Your task to perform on an android device: Do I have any events tomorrow? Image 0: 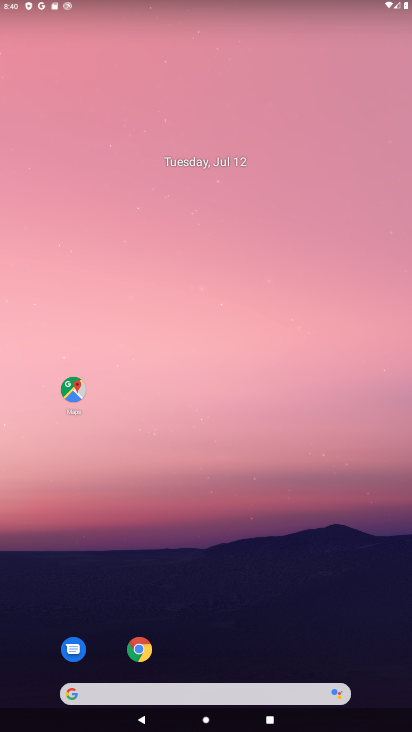
Step 0: drag from (263, 658) to (269, 57)
Your task to perform on an android device: Do I have any events tomorrow? Image 1: 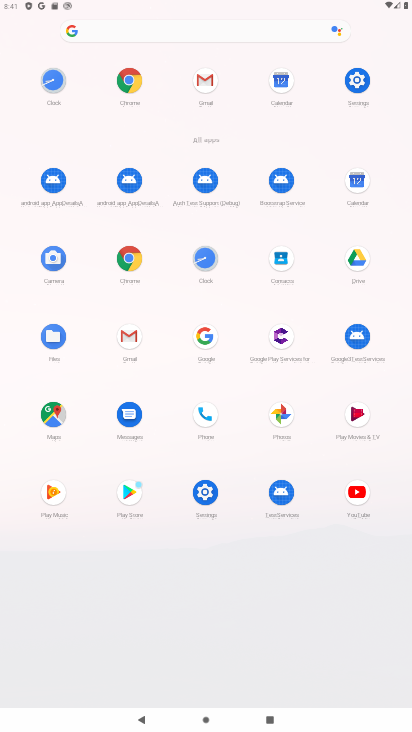
Step 1: click (282, 96)
Your task to perform on an android device: Do I have any events tomorrow? Image 2: 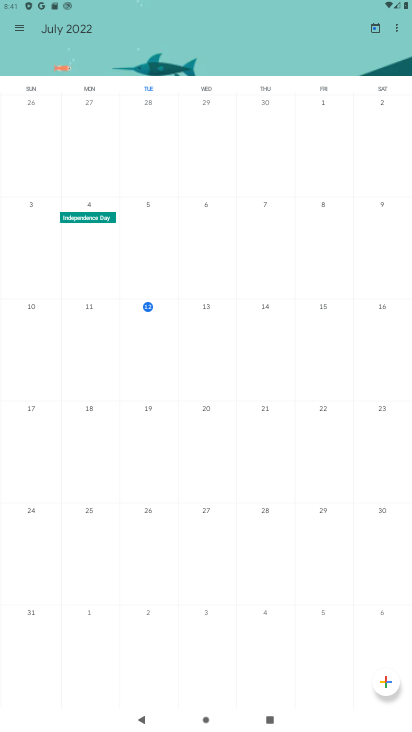
Step 2: task complete